Your task to perform on an android device: Open battery settings Image 0: 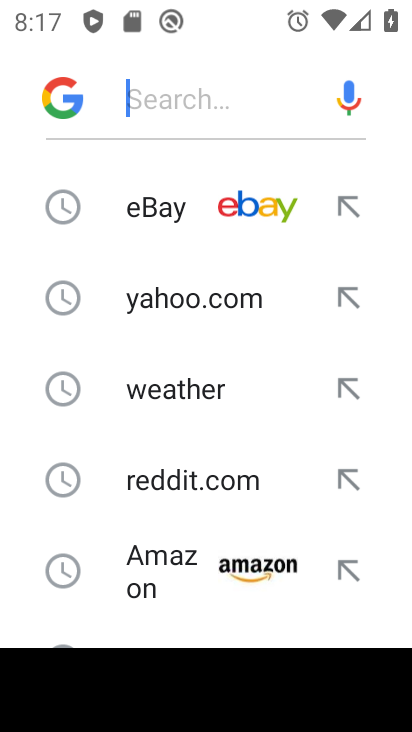
Step 0: press back button
Your task to perform on an android device: Open battery settings Image 1: 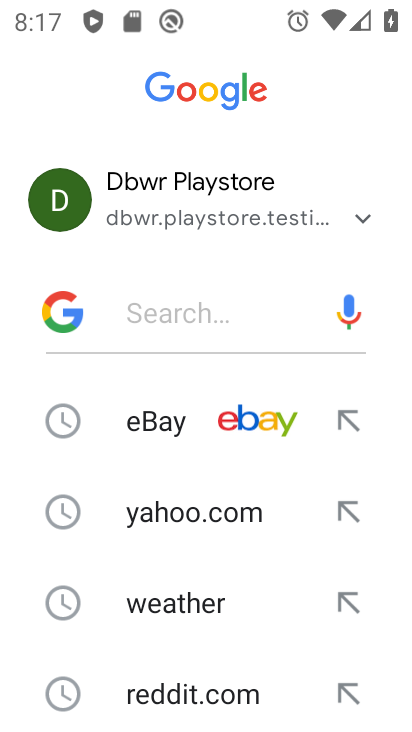
Step 1: press back button
Your task to perform on an android device: Open battery settings Image 2: 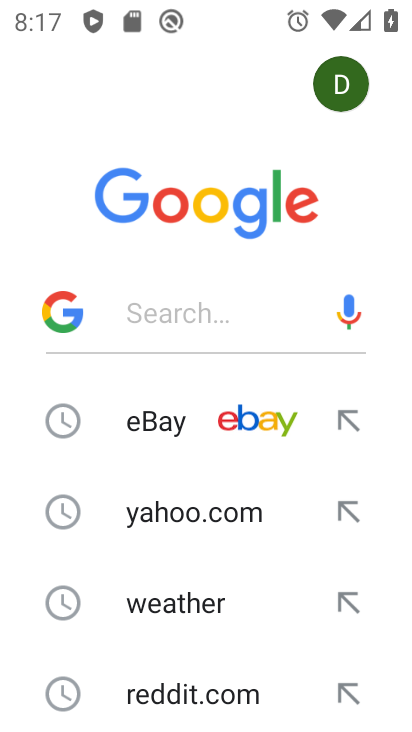
Step 2: press back button
Your task to perform on an android device: Open battery settings Image 3: 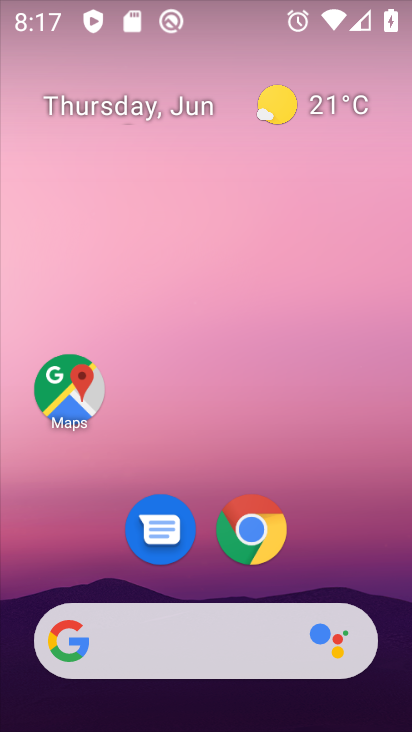
Step 3: drag from (378, 700) to (378, 102)
Your task to perform on an android device: Open battery settings Image 4: 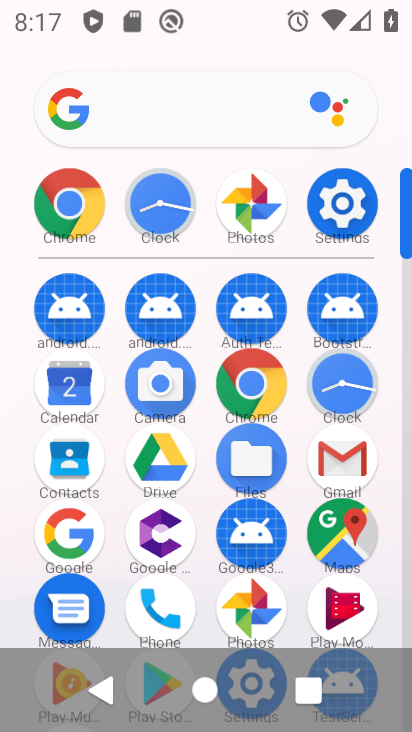
Step 4: click (359, 200)
Your task to perform on an android device: Open battery settings Image 5: 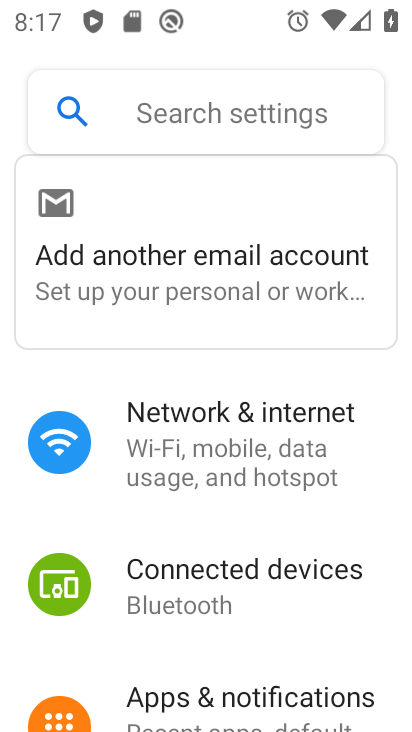
Step 5: drag from (261, 646) to (239, 259)
Your task to perform on an android device: Open battery settings Image 6: 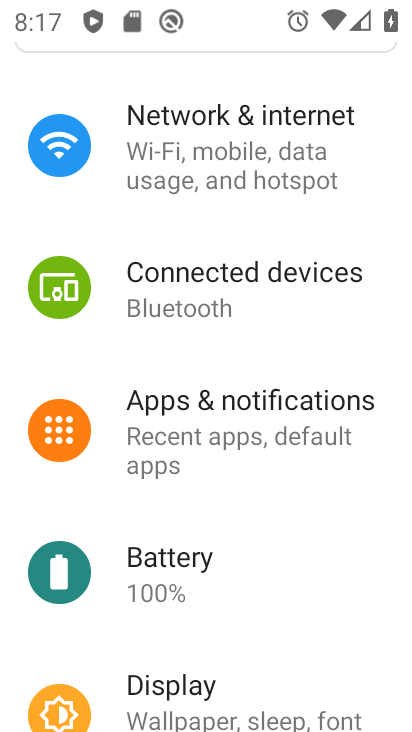
Step 6: click (146, 567)
Your task to perform on an android device: Open battery settings Image 7: 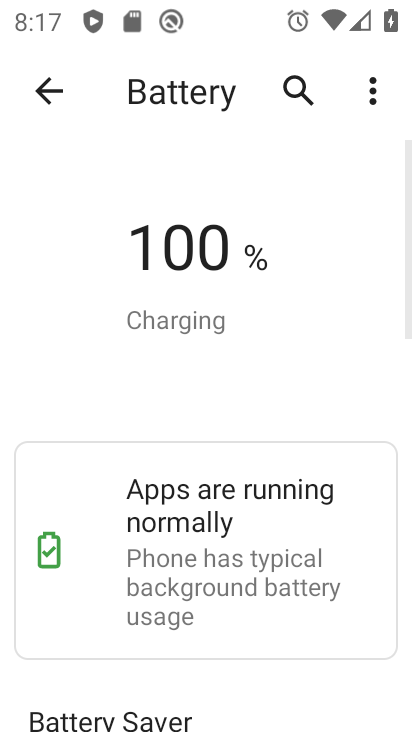
Step 7: task complete